Your task to perform on an android device: open wifi settings Image 0: 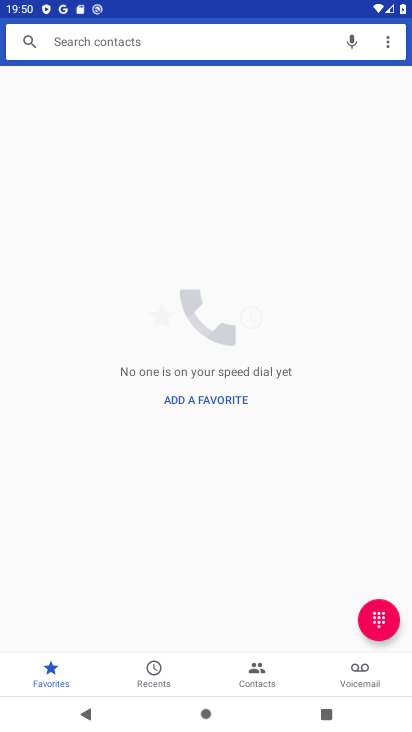
Step 0: press home button
Your task to perform on an android device: open wifi settings Image 1: 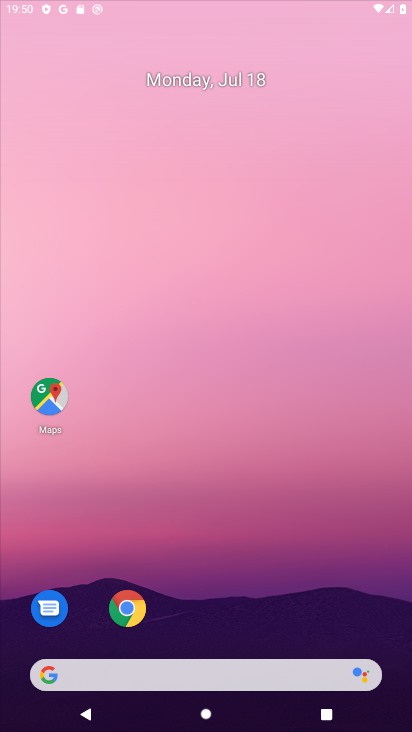
Step 1: drag from (224, 638) to (250, 57)
Your task to perform on an android device: open wifi settings Image 2: 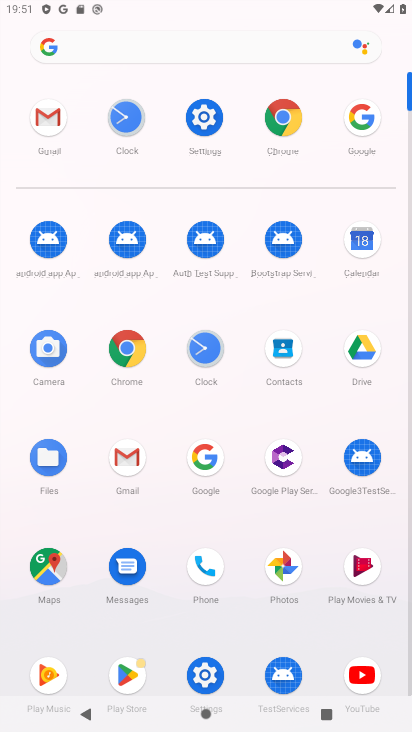
Step 2: click (205, 116)
Your task to perform on an android device: open wifi settings Image 3: 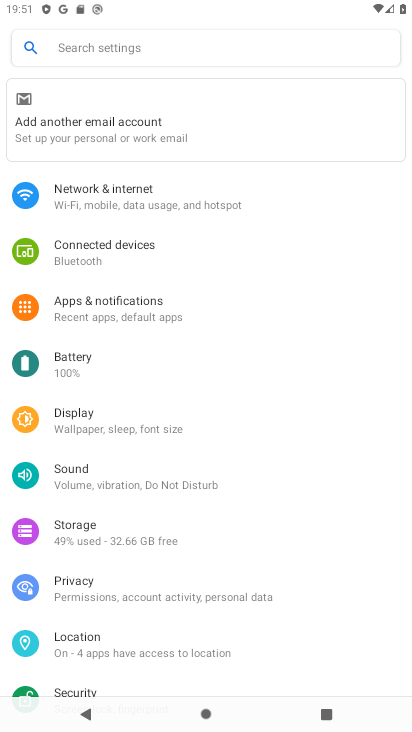
Step 3: click (124, 206)
Your task to perform on an android device: open wifi settings Image 4: 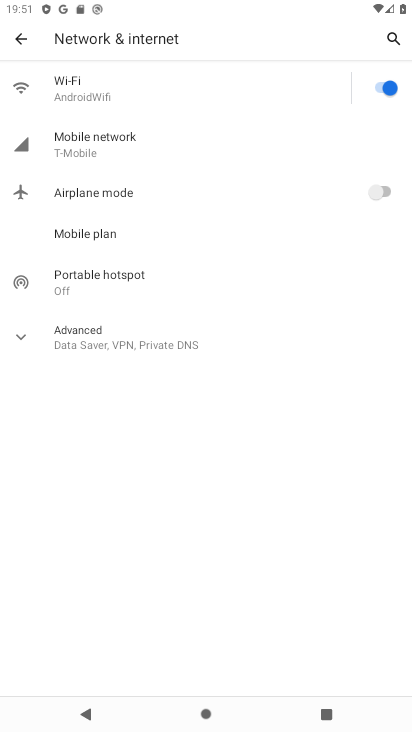
Step 4: click (137, 83)
Your task to perform on an android device: open wifi settings Image 5: 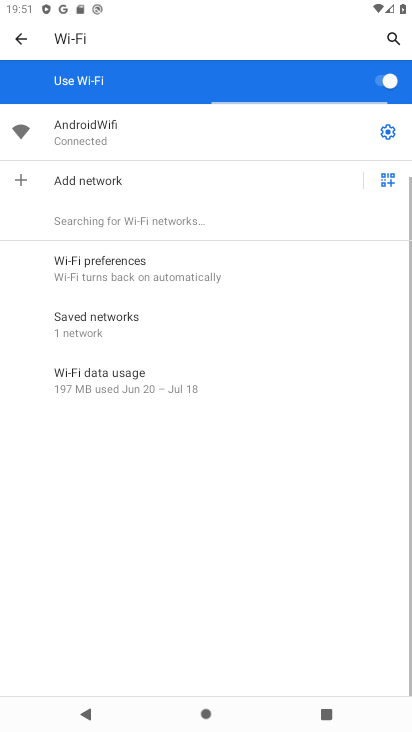
Step 5: click (159, 130)
Your task to perform on an android device: open wifi settings Image 6: 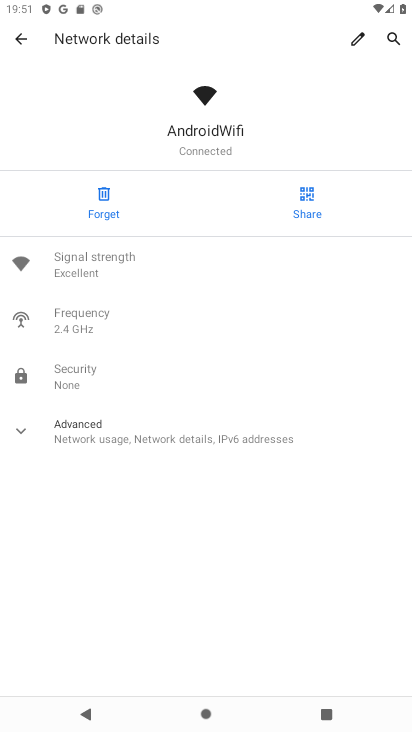
Step 6: task complete